Your task to perform on an android device: Open Wikipedia Image 0: 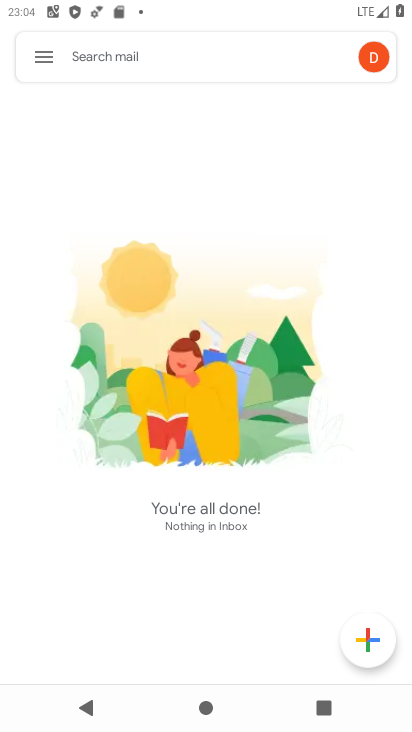
Step 0: press home button
Your task to perform on an android device: Open Wikipedia Image 1: 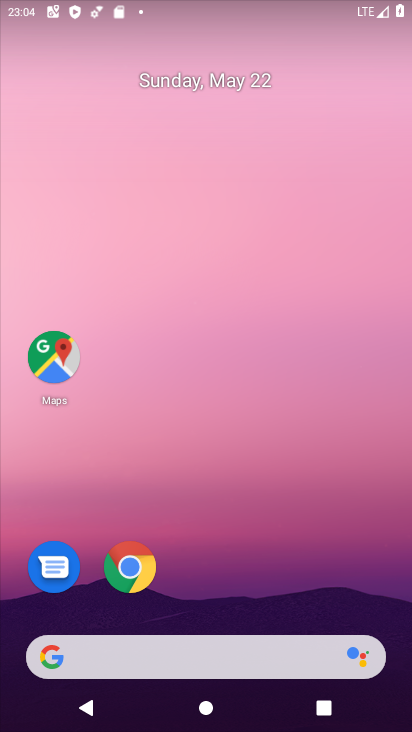
Step 1: click (129, 569)
Your task to perform on an android device: Open Wikipedia Image 2: 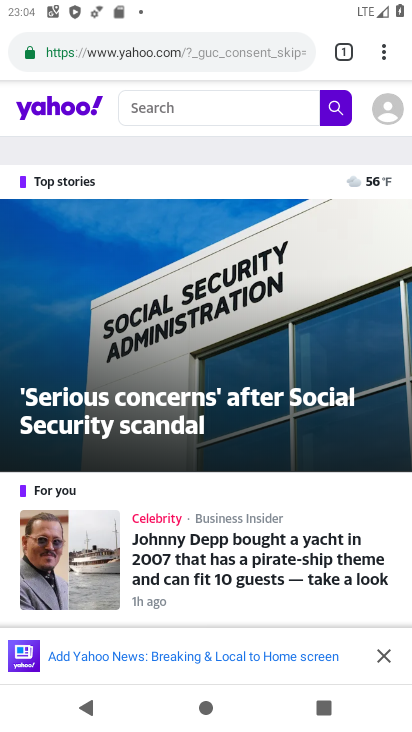
Step 2: click (188, 48)
Your task to perform on an android device: Open Wikipedia Image 3: 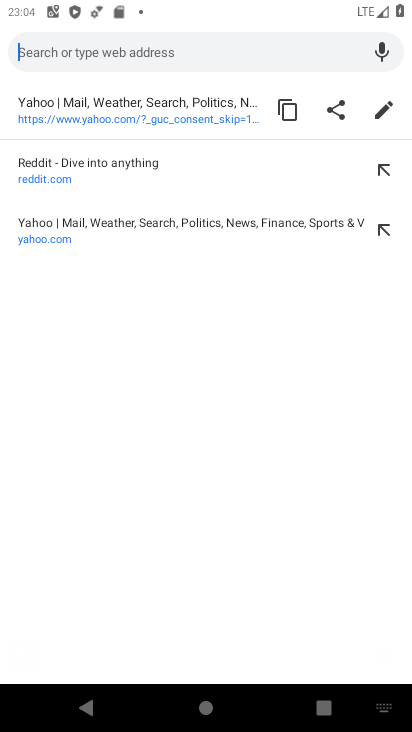
Step 3: type "wikipedia"
Your task to perform on an android device: Open Wikipedia Image 4: 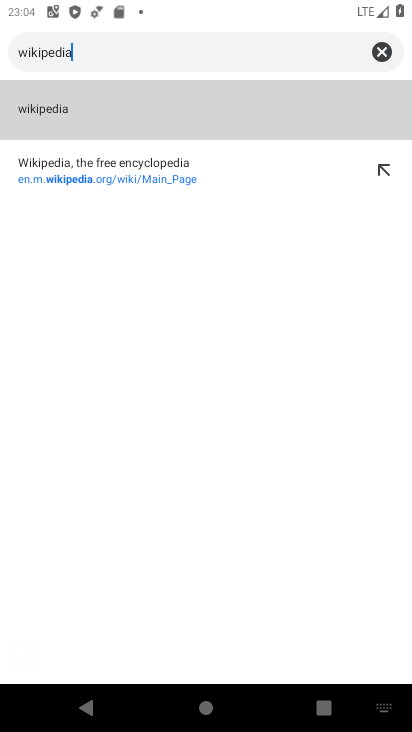
Step 4: click (66, 120)
Your task to perform on an android device: Open Wikipedia Image 5: 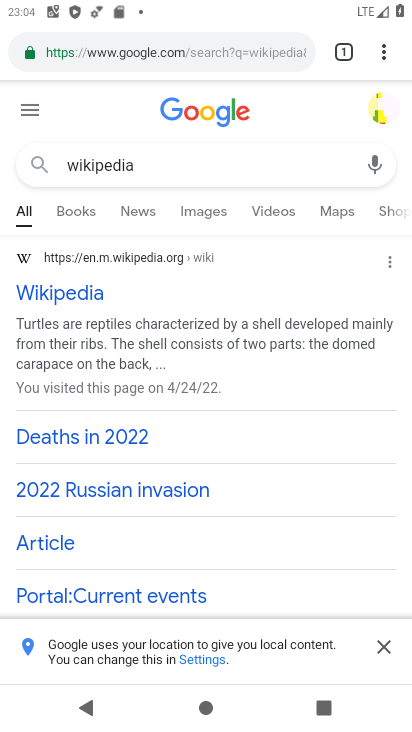
Step 5: click (74, 299)
Your task to perform on an android device: Open Wikipedia Image 6: 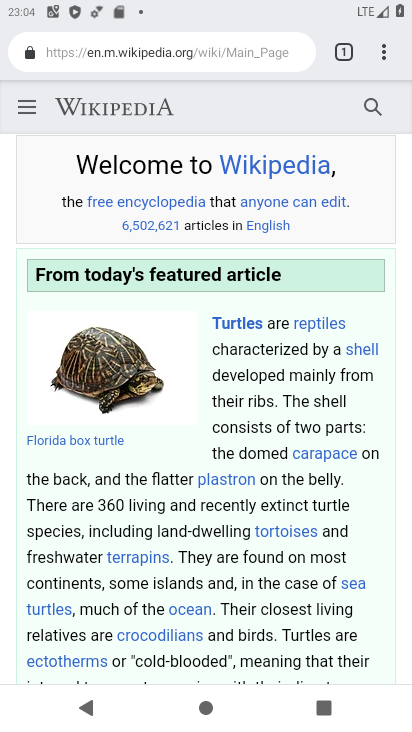
Step 6: task complete